Your task to perform on an android device: turn on data saver in the chrome app Image 0: 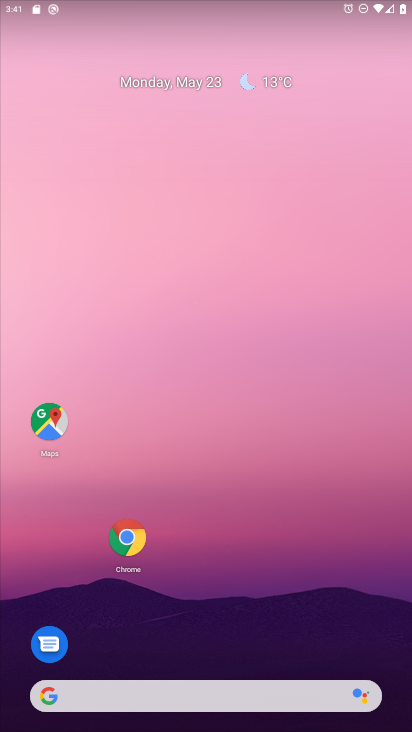
Step 0: click (124, 544)
Your task to perform on an android device: turn on data saver in the chrome app Image 1: 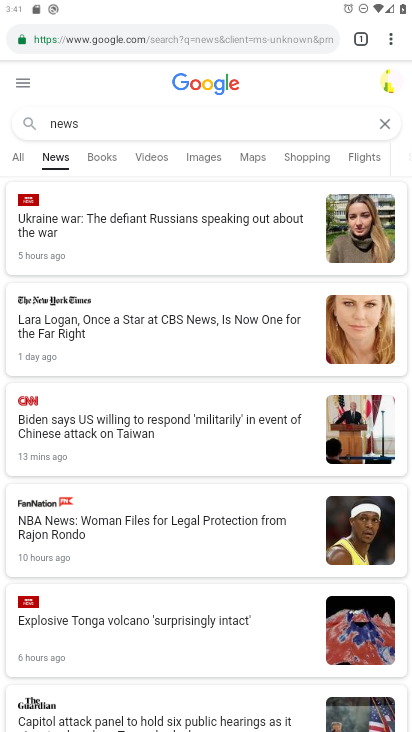
Step 1: click (389, 39)
Your task to perform on an android device: turn on data saver in the chrome app Image 2: 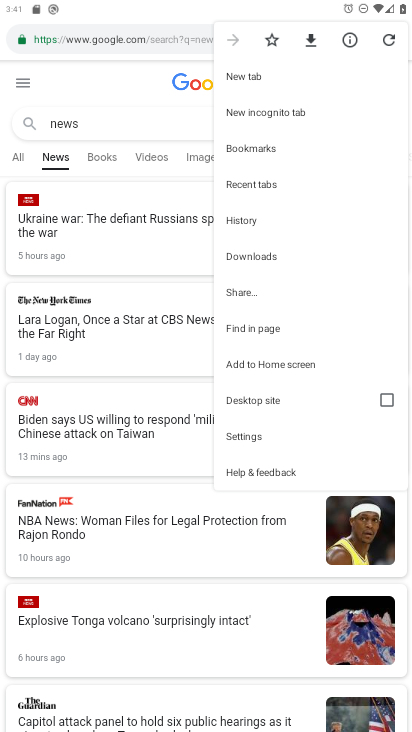
Step 2: click (265, 437)
Your task to perform on an android device: turn on data saver in the chrome app Image 3: 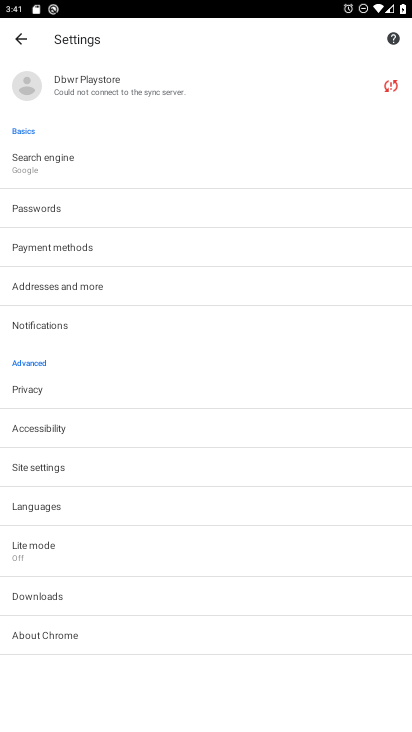
Step 3: click (80, 558)
Your task to perform on an android device: turn on data saver in the chrome app Image 4: 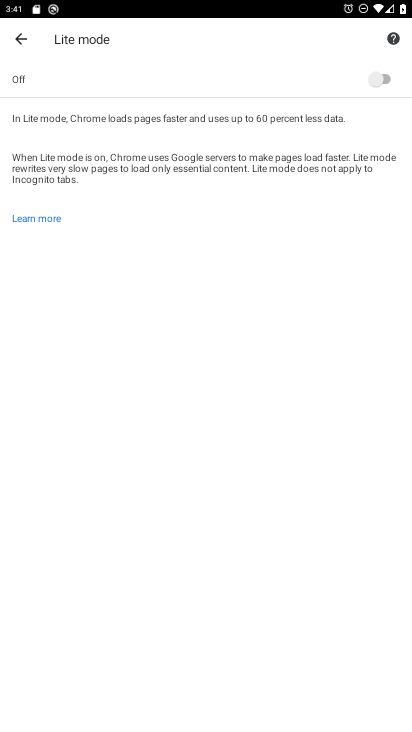
Step 4: click (376, 79)
Your task to perform on an android device: turn on data saver in the chrome app Image 5: 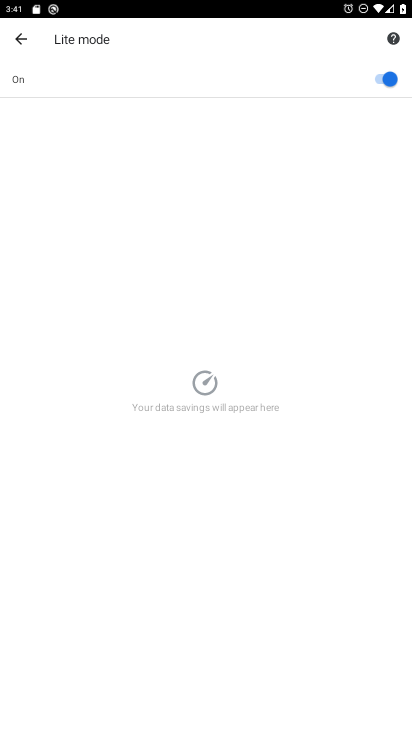
Step 5: task complete